Your task to perform on an android device: Search for "usb-a to usb-b" on costco.com, select the first entry, add it to the cart, then select checkout. Image 0: 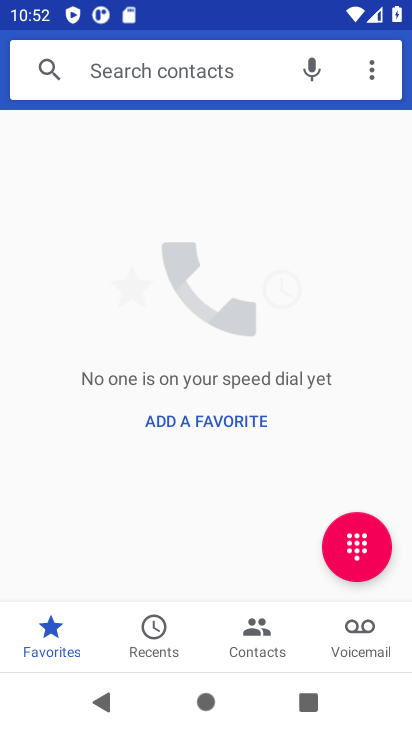
Step 0: press home button
Your task to perform on an android device: Search for "usb-a to usb-b" on costco.com, select the first entry, add it to the cart, then select checkout. Image 1: 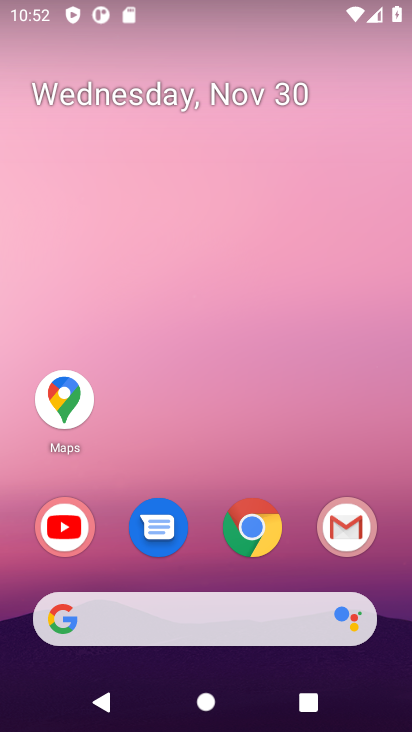
Step 1: click (256, 537)
Your task to perform on an android device: Search for "usb-a to usb-b" on costco.com, select the first entry, add it to the cart, then select checkout. Image 2: 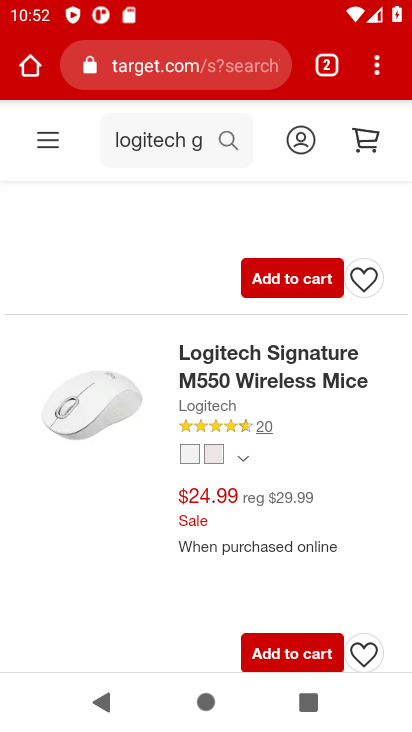
Step 2: click (193, 71)
Your task to perform on an android device: Search for "usb-a to usb-b" on costco.com, select the first entry, add it to the cart, then select checkout. Image 3: 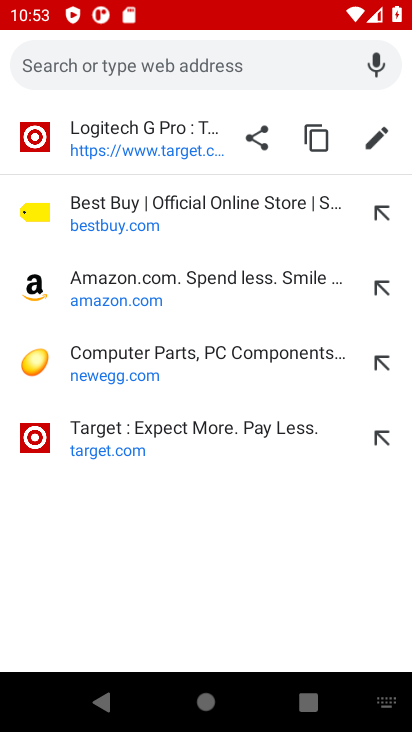
Step 3: type "costco.com"
Your task to perform on an android device: Search for "usb-a to usb-b" on costco.com, select the first entry, add it to the cart, then select checkout. Image 4: 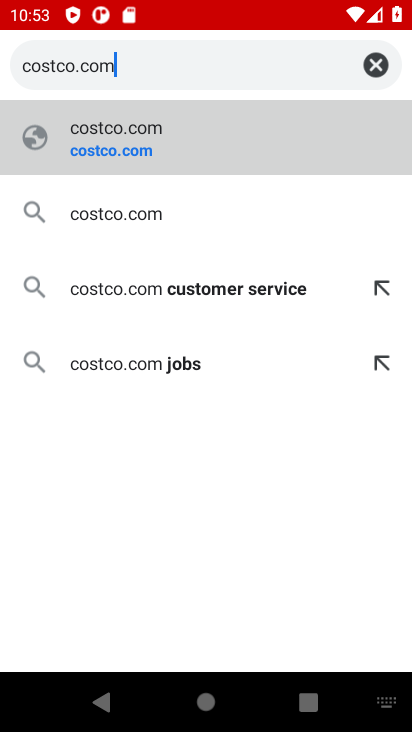
Step 4: click (118, 142)
Your task to perform on an android device: Search for "usb-a to usb-b" on costco.com, select the first entry, add it to the cart, then select checkout. Image 5: 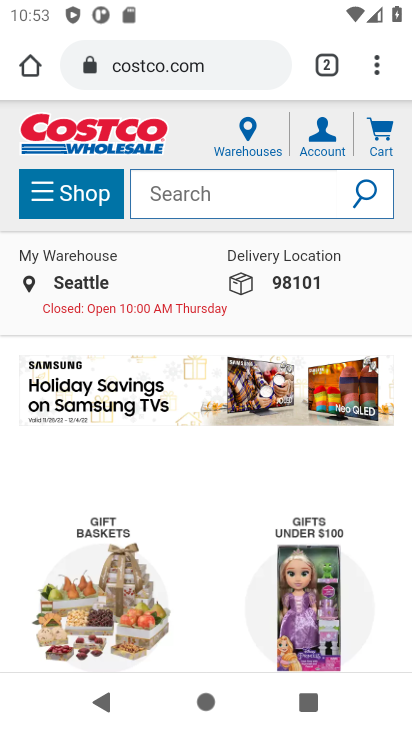
Step 5: click (179, 199)
Your task to perform on an android device: Search for "usb-a to usb-b" on costco.com, select the first entry, add it to the cart, then select checkout. Image 6: 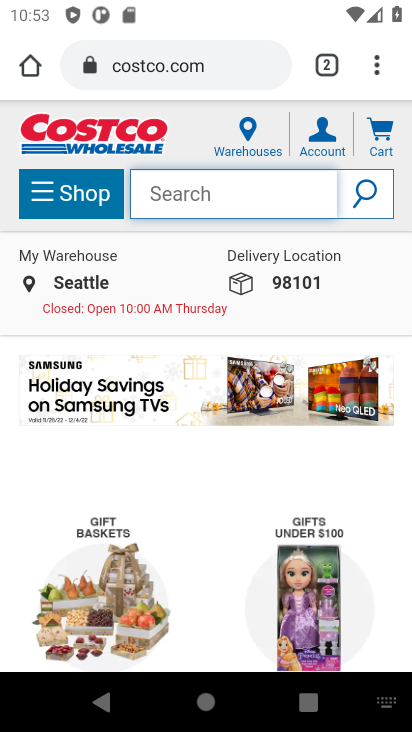
Step 6: type "usb-a to usb-b"
Your task to perform on an android device: Search for "usb-a to usb-b" on costco.com, select the first entry, add it to the cart, then select checkout. Image 7: 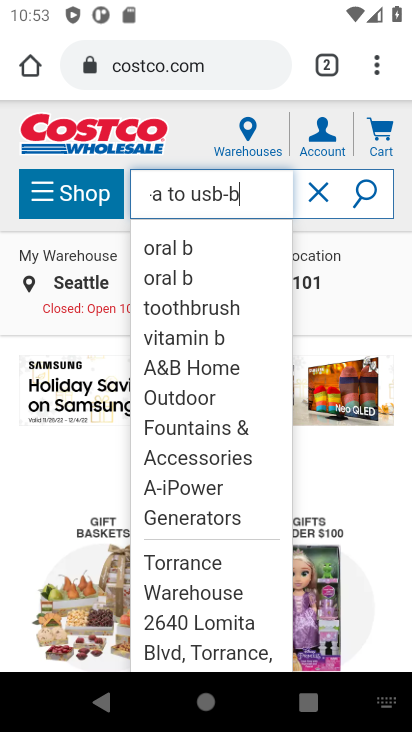
Step 7: click (367, 185)
Your task to perform on an android device: Search for "usb-a to usb-b" on costco.com, select the first entry, add it to the cart, then select checkout. Image 8: 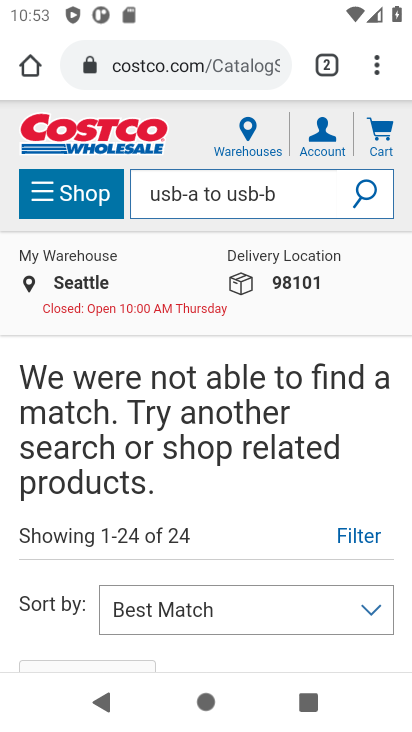
Step 8: task complete